Your task to perform on an android device: delete a single message in the gmail app Image 0: 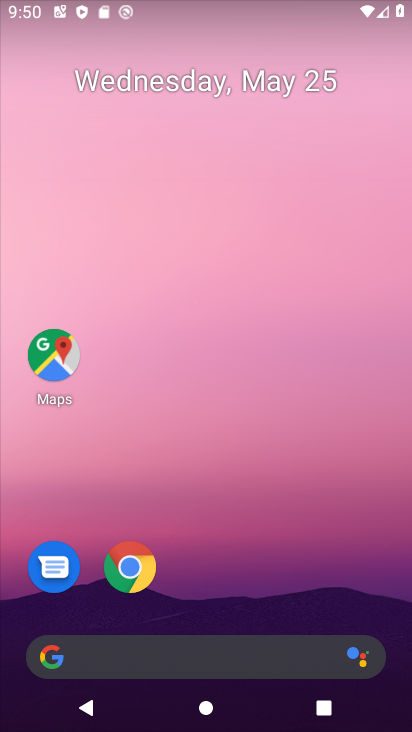
Step 0: drag from (262, 589) to (282, 256)
Your task to perform on an android device: delete a single message in the gmail app Image 1: 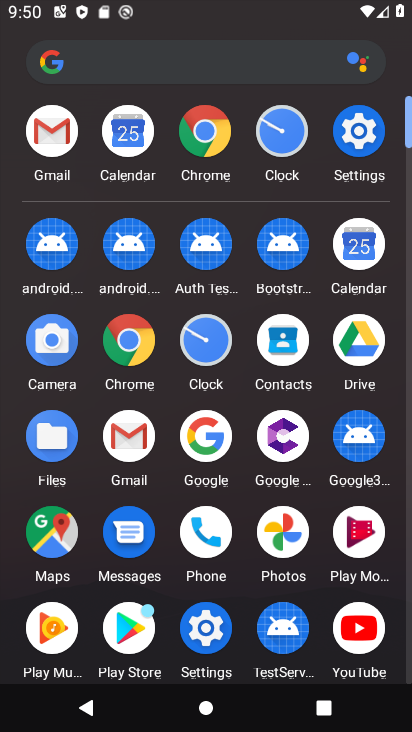
Step 1: click (62, 130)
Your task to perform on an android device: delete a single message in the gmail app Image 2: 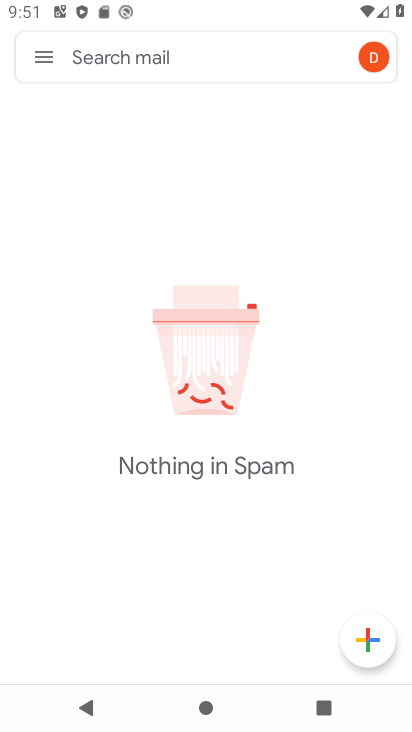
Step 2: task complete